Your task to perform on an android device: open sync settings in chrome Image 0: 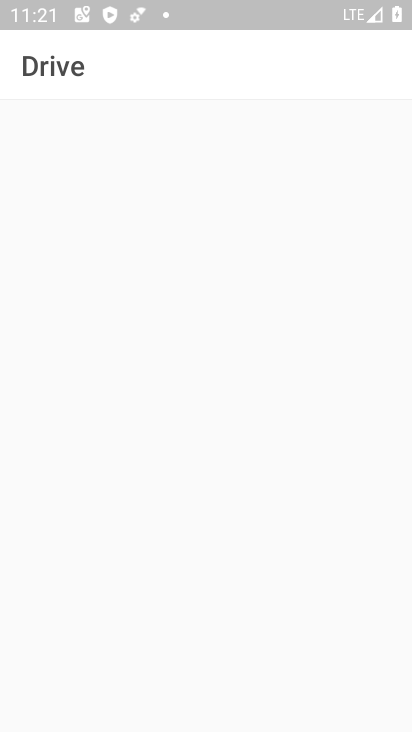
Step 0: press home button
Your task to perform on an android device: open sync settings in chrome Image 1: 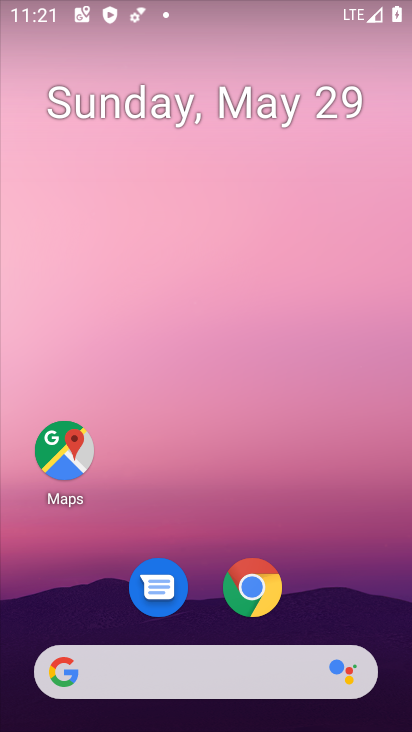
Step 1: click (249, 583)
Your task to perform on an android device: open sync settings in chrome Image 2: 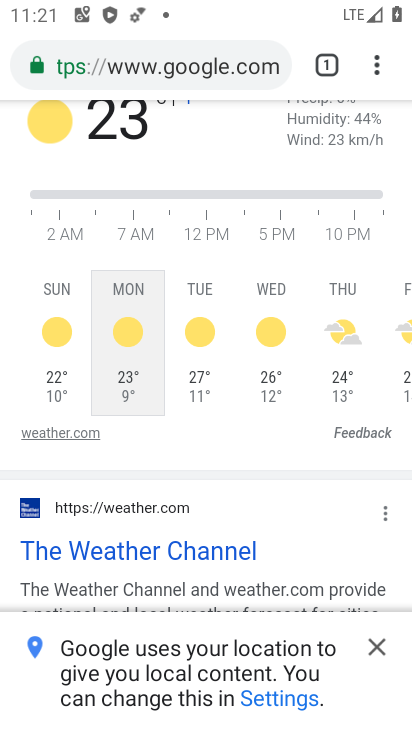
Step 2: drag from (372, 64) to (193, 633)
Your task to perform on an android device: open sync settings in chrome Image 3: 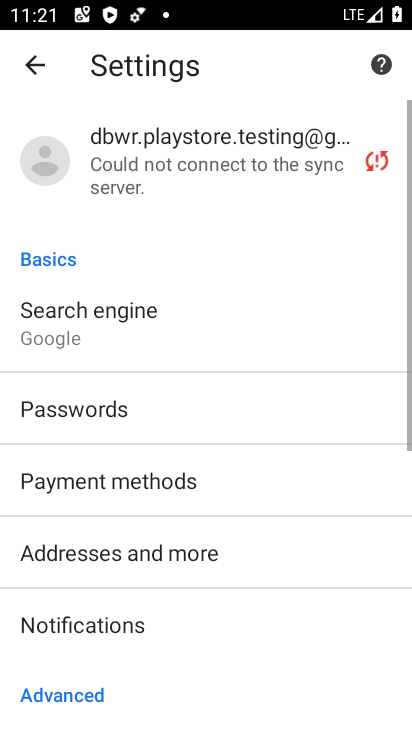
Step 3: drag from (226, 502) to (249, 4)
Your task to perform on an android device: open sync settings in chrome Image 4: 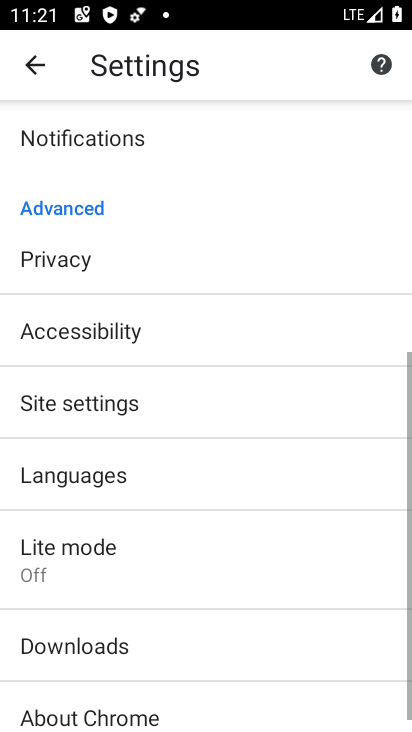
Step 4: drag from (222, 512) to (295, 174)
Your task to perform on an android device: open sync settings in chrome Image 5: 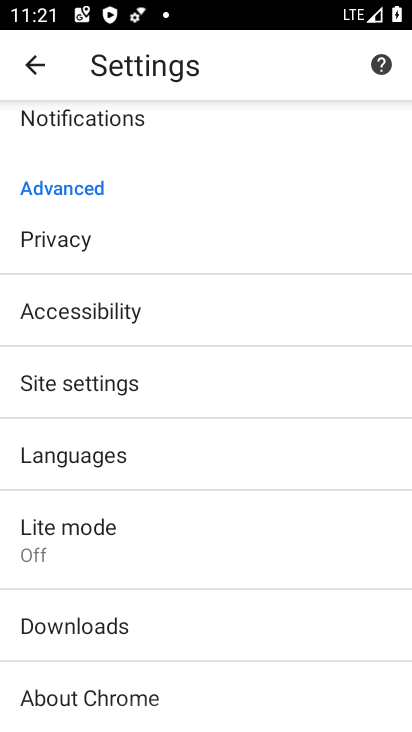
Step 5: drag from (295, 174) to (297, 114)
Your task to perform on an android device: open sync settings in chrome Image 6: 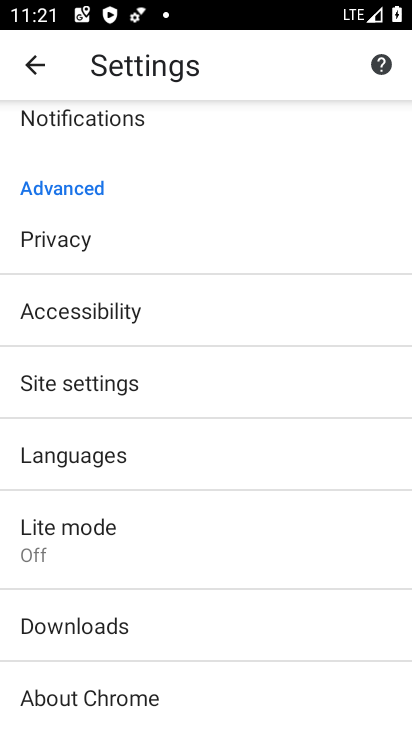
Step 6: drag from (247, 215) to (229, 591)
Your task to perform on an android device: open sync settings in chrome Image 7: 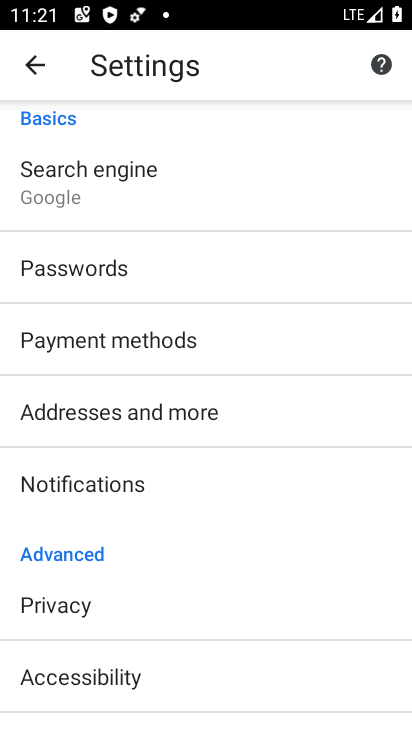
Step 7: drag from (231, 214) to (213, 598)
Your task to perform on an android device: open sync settings in chrome Image 8: 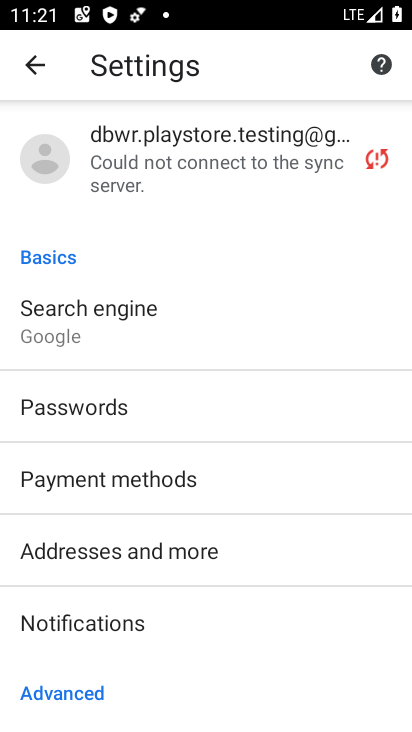
Step 8: click (273, 151)
Your task to perform on an android device: open sync settings in chrome Image 9: 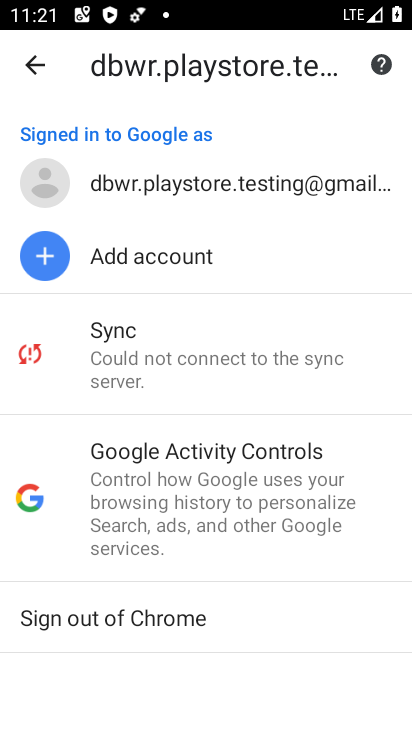
Step 9: click (186, 309)
Your task to perform on an android device: open sync settings in chrome Image 10: 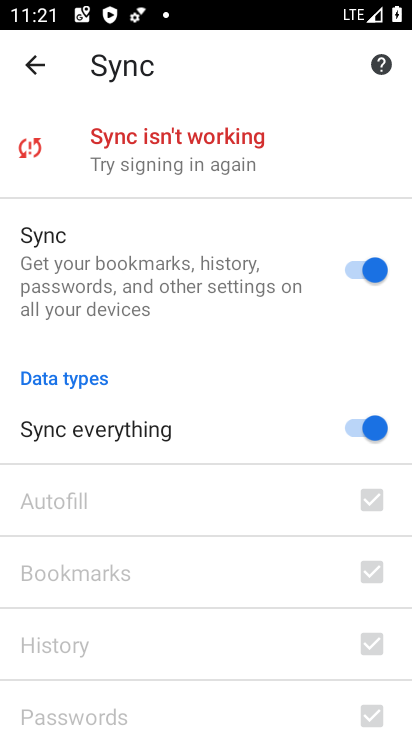
Step 10: task complete